Your task to perform on an android device: open chrome and create a bookmark for the current page Image 0: 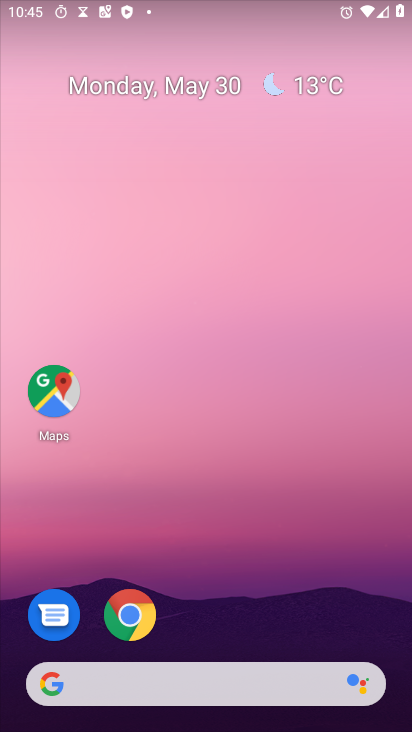
Step 0: drag from (293, 213) to (325, 41)
Your task to perform on an android device: open chrome and create a bookmark for the current page Image 1: 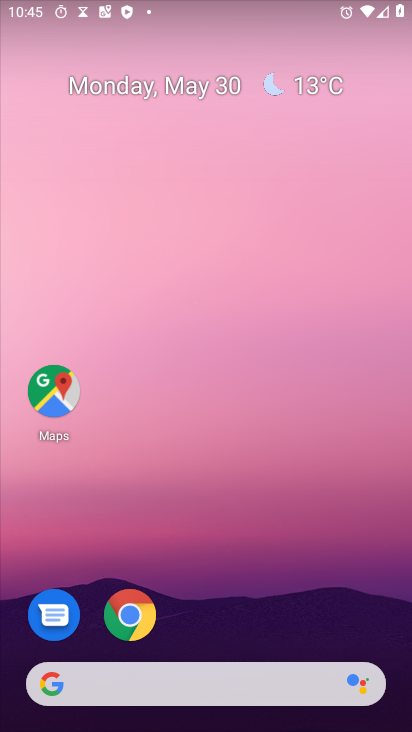
Step 1: drag from (311, 547) to (347, 96)
Your task to perform on an android device: open chrome and create a bookmark for the current page Image 2: 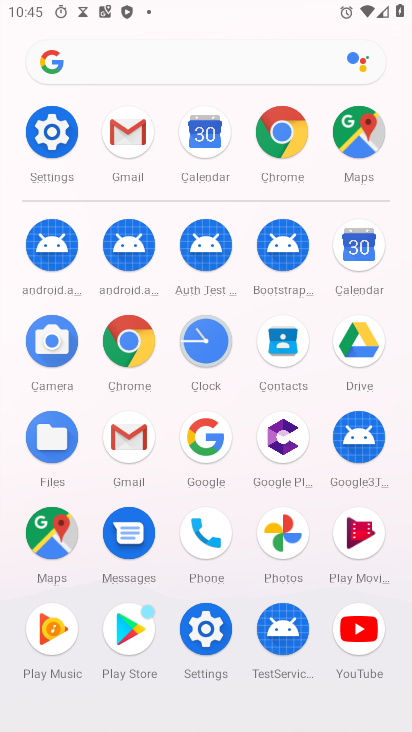
Step 2: click (281, 142)
Your task to perform on an android device: open chrome and create a bookmark for the current page Image 3: 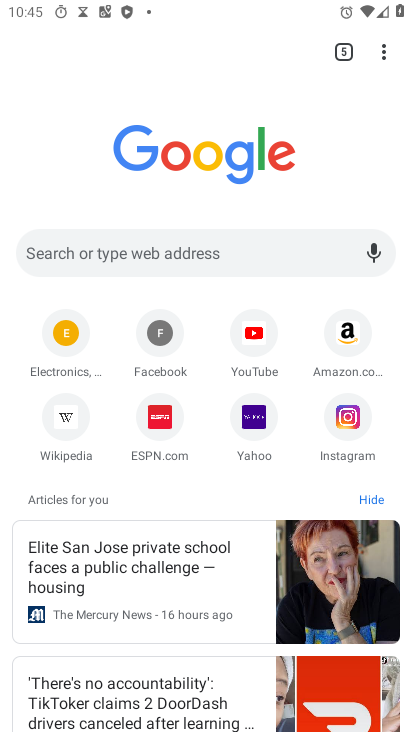
Step 3: task complete